Your task to perform on an android device: toggle location history Image 0: 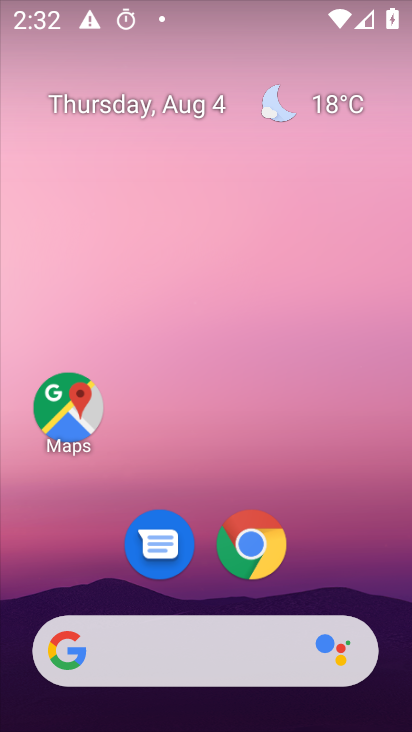
Step 0: drag from (386, 685) to (366, 196)
Your task to perform on an android device: toggle location history Image 1: 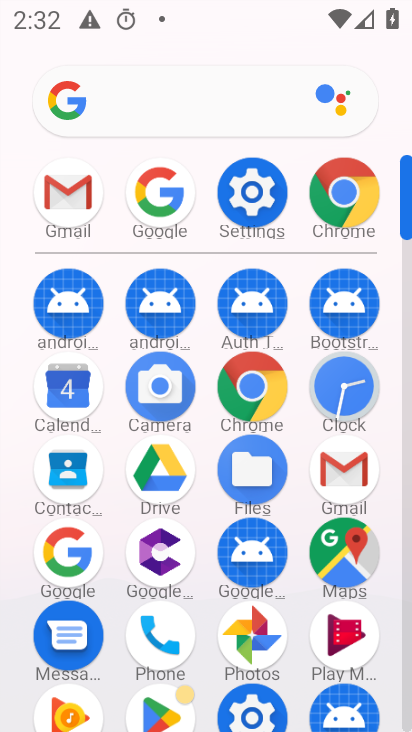
Step 1: click (251, 202)
Your task to perform on an android device: toggle location history Image 2: 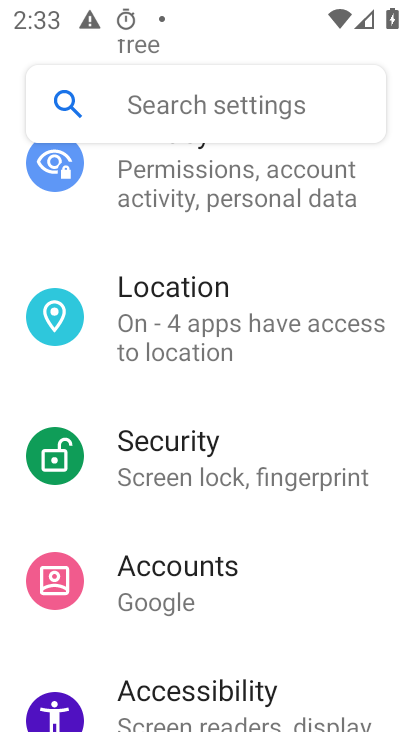
Step 2: task complete